Your task to perform on an android device: Play the last video I watched on Youtube Image 0: 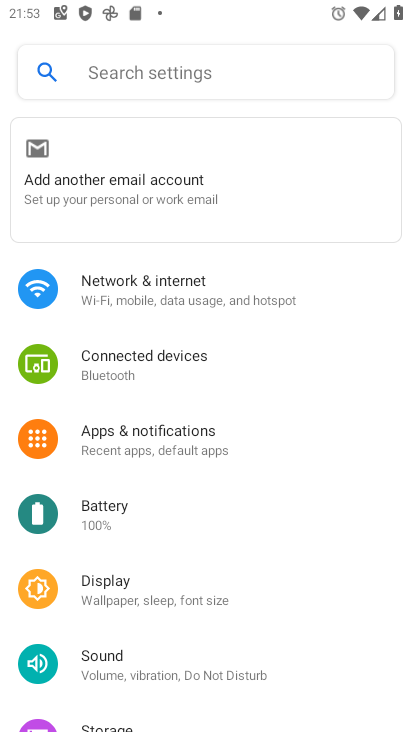
Step 0: press home button
Your task to perform on an android device: Play the last video I watched on Youtube Image 1: 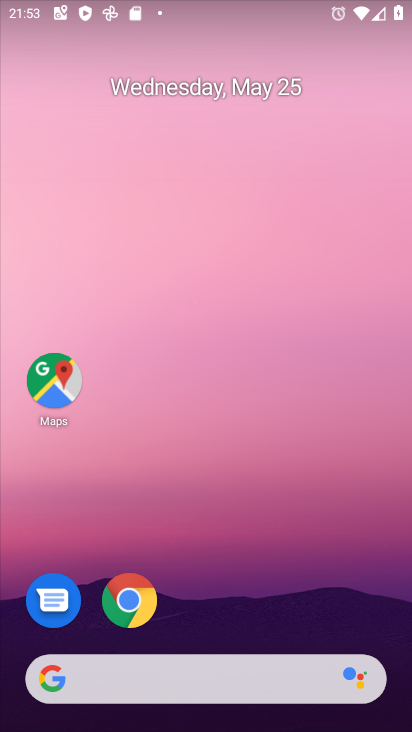
Step 1: drag from (325, 596) to (279, 154)
Your task to perform on an android device: Play the last video I watched on Youtube Image 2: 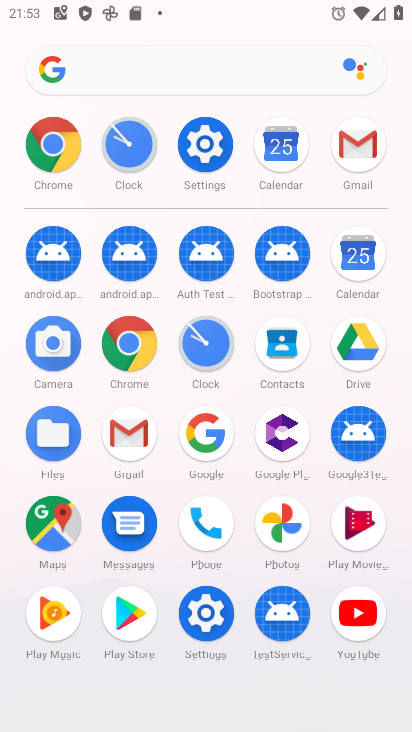
Step 2: click (354, 623)
Your task to perform on an android device: Play the last video I watched on Youtube Image 3: 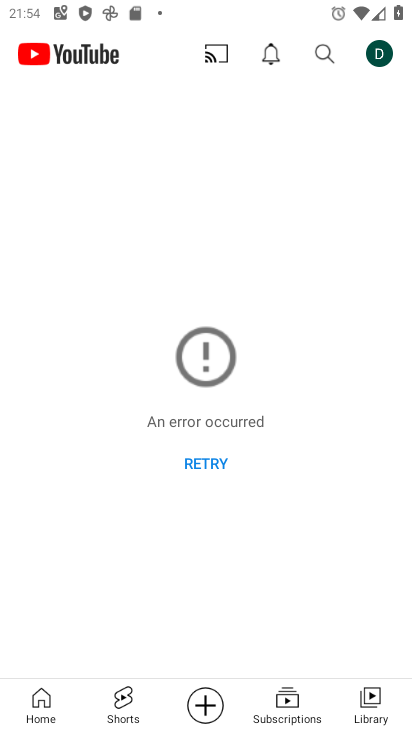
Step 3: click (380, 713)
Your task to perform on an android device: Play the last video I watched on Youtube Image 4: 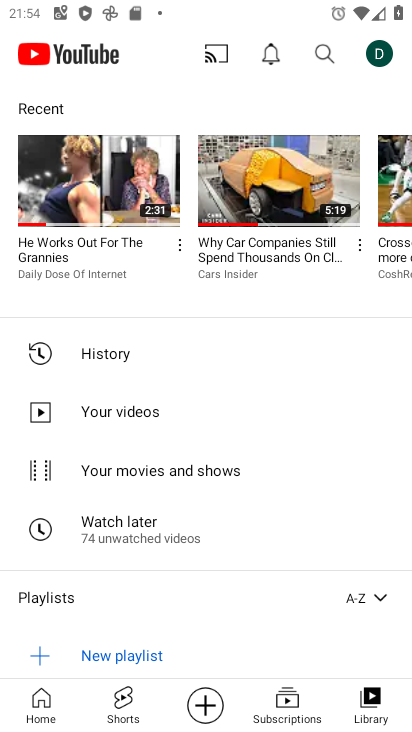
Step 4: task complete